Your task to perform on an android device: Open Google Maps Image 0: 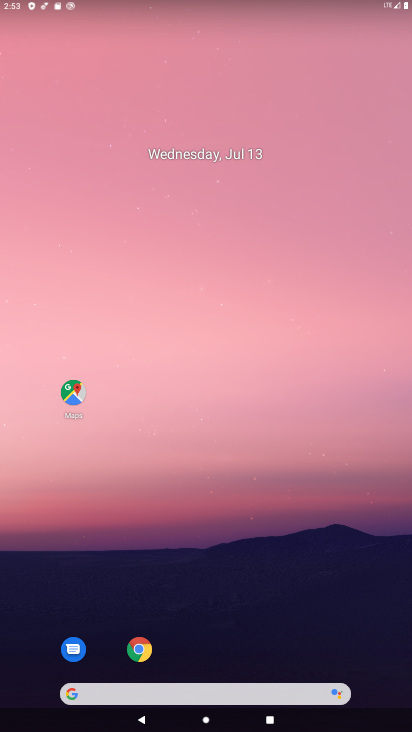
Step 0: press home button
Your task to perform on an android device: Open Google Maps Image 1: 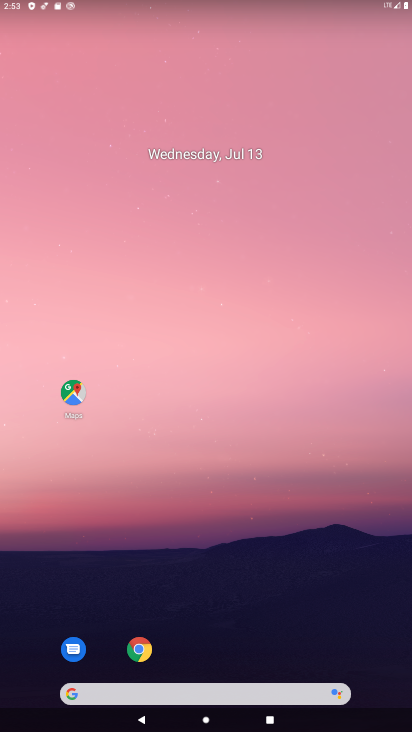
Step 1: click (72, 387)
Your task to perform on an android device: Open Google Maps Image 2: 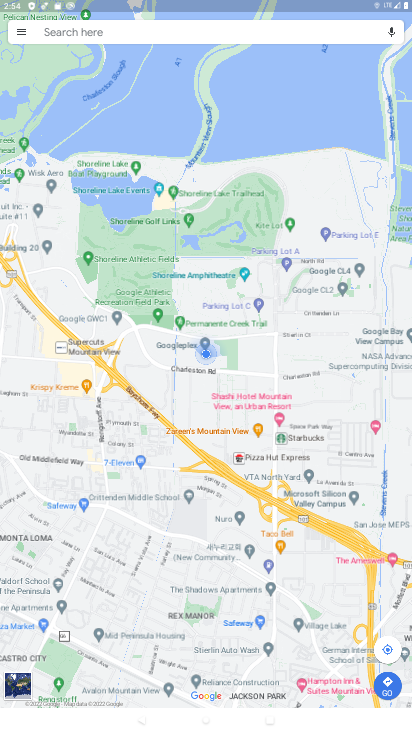
Step 2: task complete